Your task to perform on an android device: show emergency info Image 0: 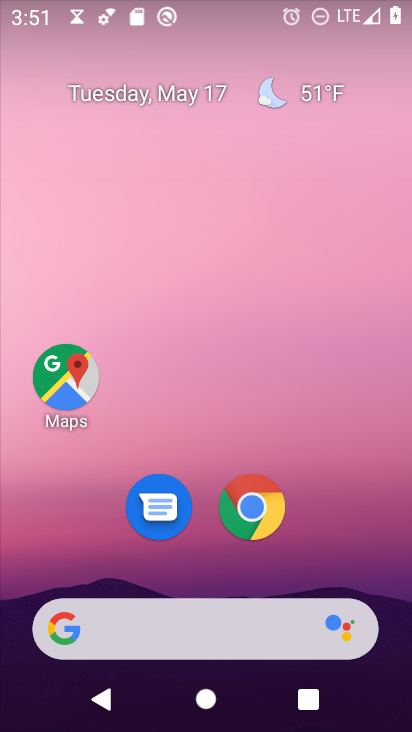
Step 0: drag from (231, 567) to (270, 33)
Your task to perform on an android device: show emergency info Image 1: 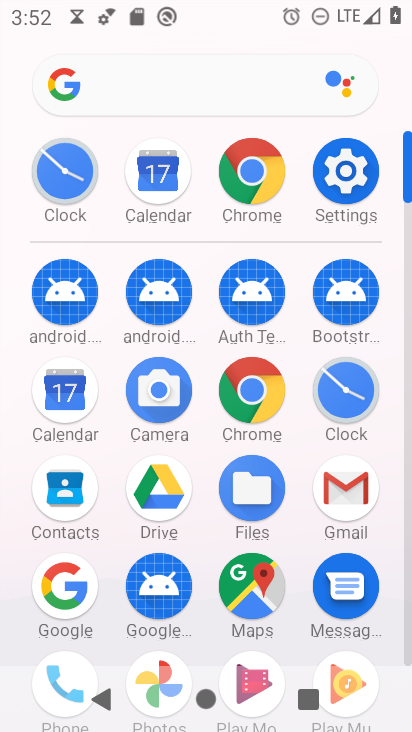
Step 1: click (344, 166)
Your task to perform on an android device: show emergency info Image 2: 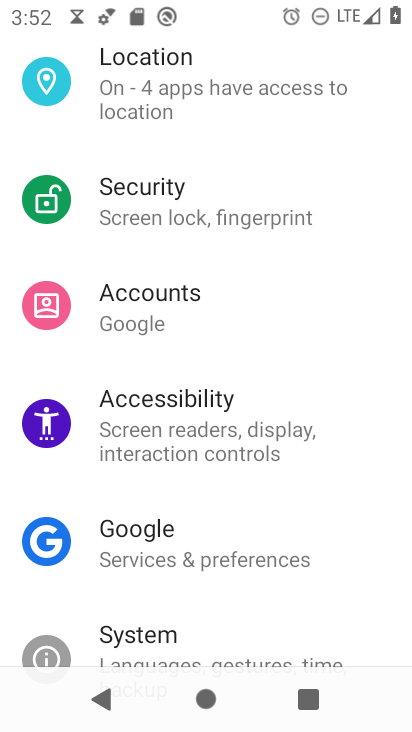
Step 2: drag from (196, 551) to (160, 368)
Your task to perform on an android device: show emergency info Image 3: 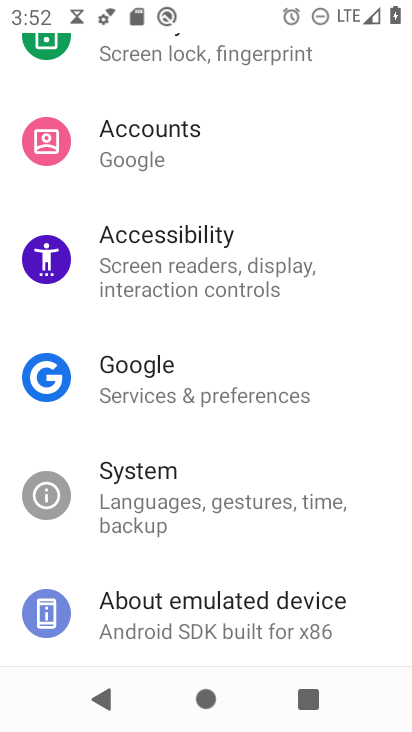
Step 3: click (174, 597)
Your task to perform on an android device: show emergency info Image 4: 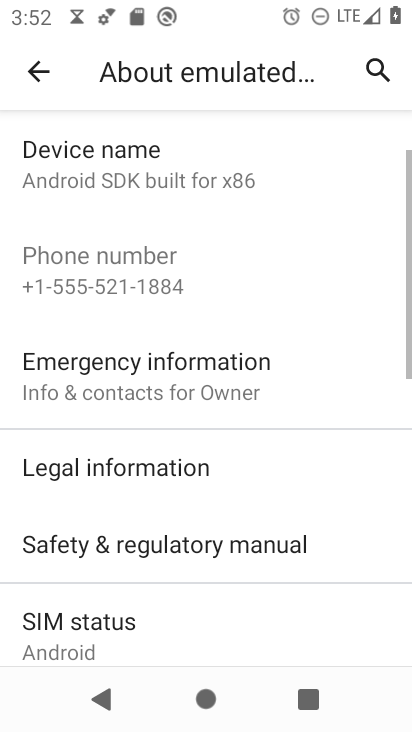
Step 4: click (105, 407)
Your task to perform on an android device: show emergency info Image 5: 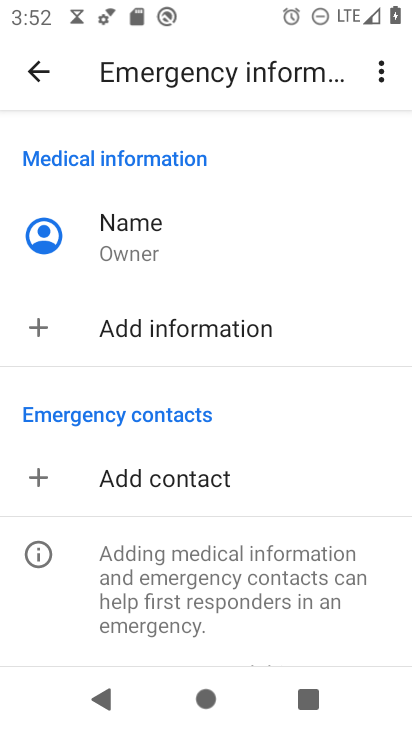
Step 5: task complete